Your task to perform on an android device: add a contact Image 0: 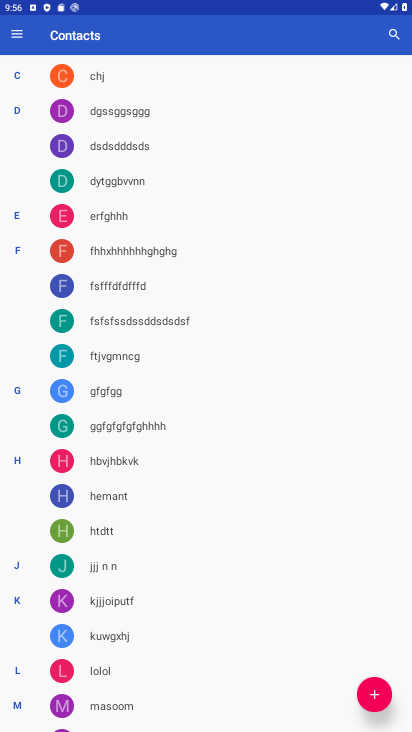
Step 0: click (373, 694)
Your task to perform on an android device: add a contact Image 1: 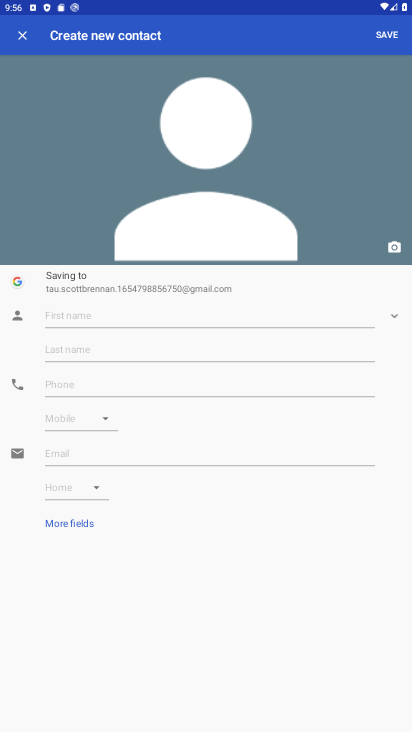
Step 1: click (69, 316)
Your task to perform on an android device: add a contact Image 2: 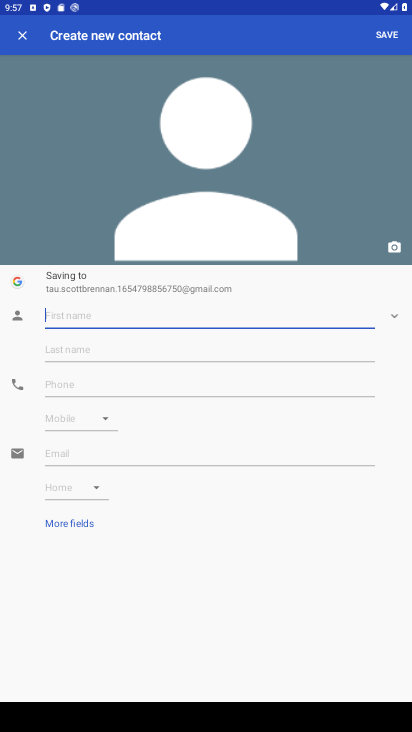
Step 2: type "ufhkhiug"
Your task to perform on an android device: add a contact Image 3: 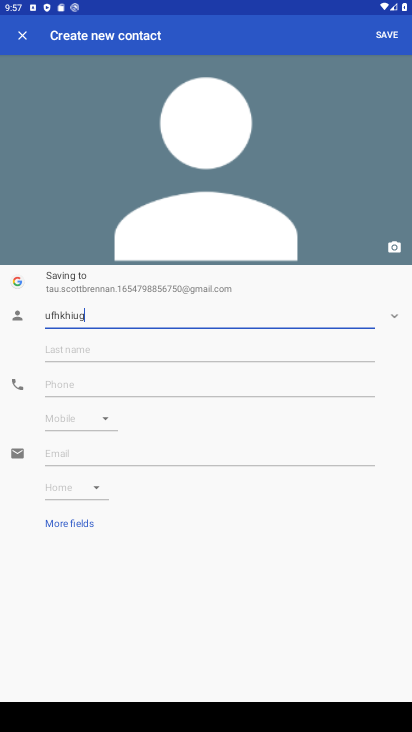
Step 3: type ""
Your task to perform on an android device: add a contact Image 4: 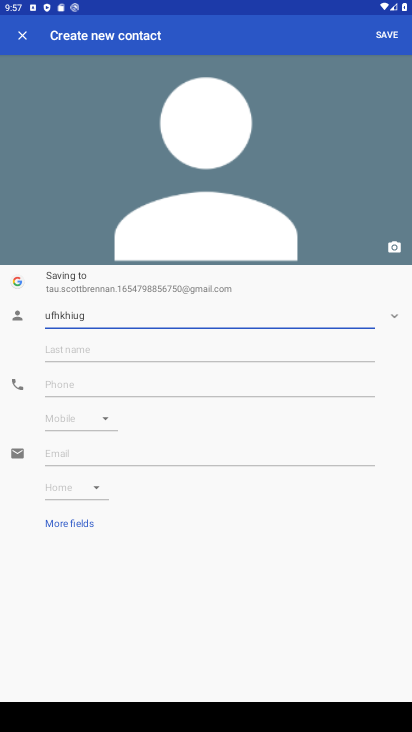
Step 4: click (385, 39)
Your task to perform on an android device: add a contact Image 5: 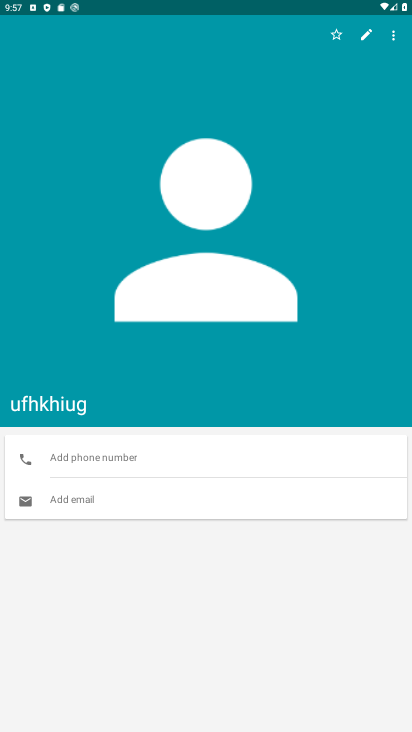
Step 5: task complete